Your task to perform on an android device: Open the map Image 0: 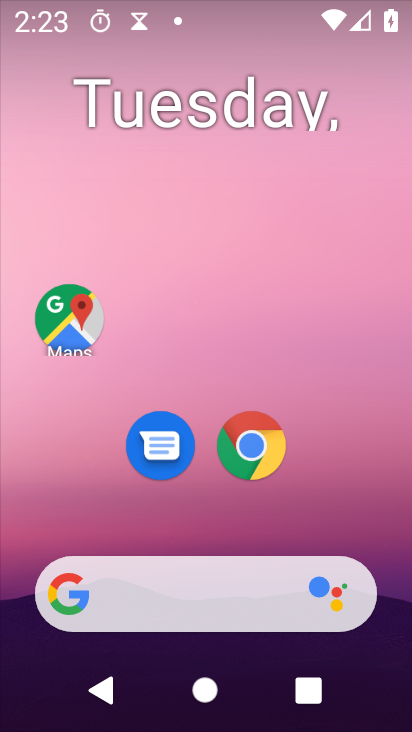
Step 0: drag from (237, 606) to (247, 70)
Your task to perform on an android device: Open the map Image 1: 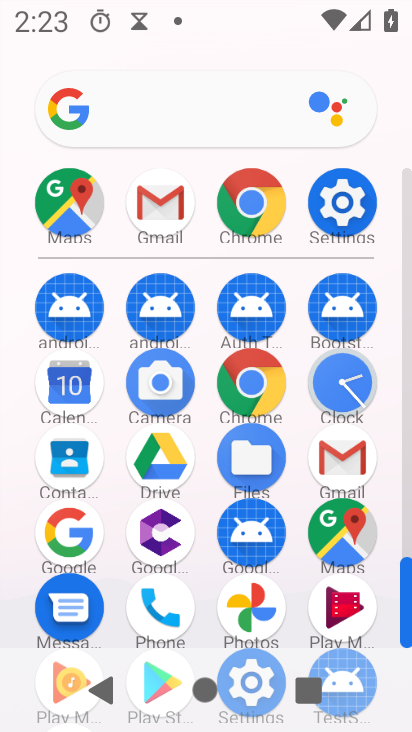
Step 1: click (325, 536)
Your task to perform on an android device: Open the map Image 2: 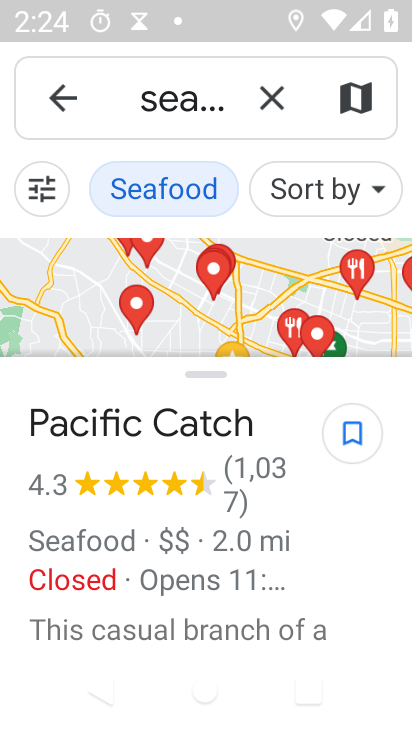
Step 2: press back button
Your task to perform on an android device: Open the map Image 3: 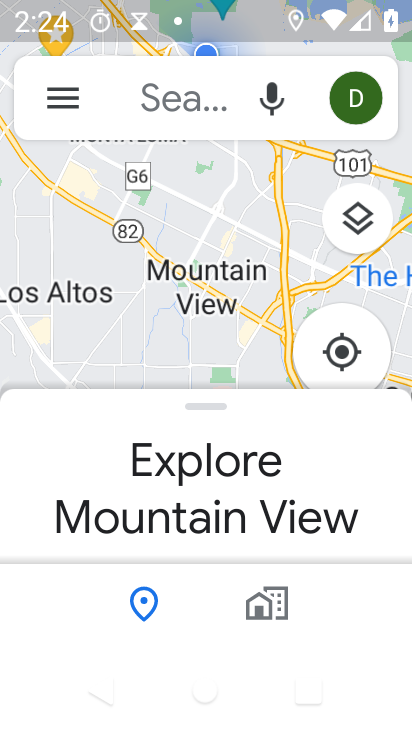
Step 3: press back button
Your task to perform on an android device: Open the map Image 4: 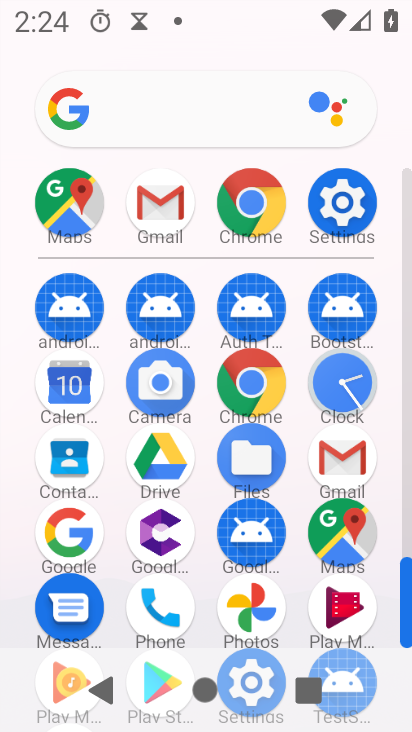
Step 4: click (353, 540)
Your task to perform on an android device: Open the map Image 5: 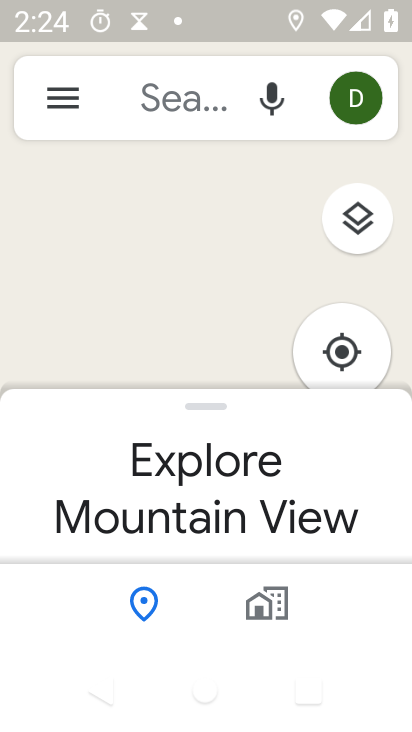
Step 5: task complete